Your task to perform on an android device: toggle notifications settings in the gmail app Image 0: 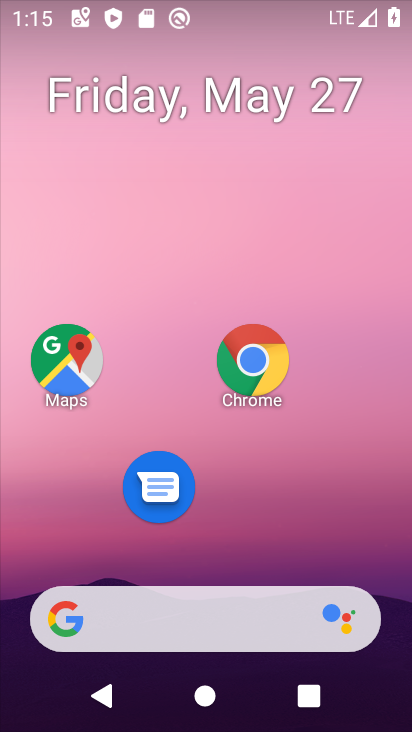
Step 0: drag from (241, 558) to (247, 40)
Your task to perform on an android device: toggle notifications settings in the gmail app Image 1: 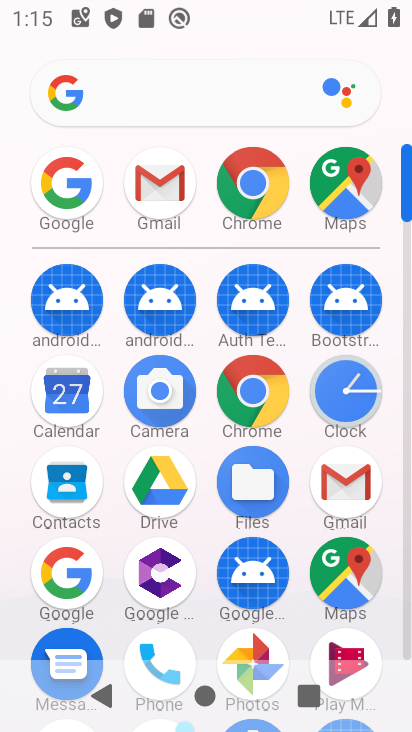
Step 1: click (347, 486)
Your task to perform on an android device: toggle notifications settings in the gmail app Image 2: 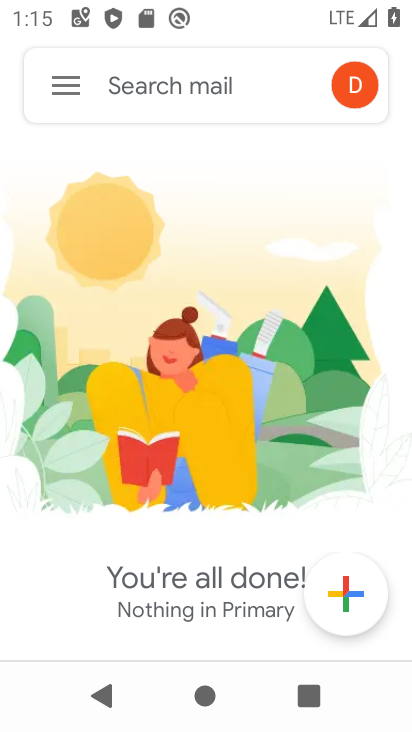
Step 2: click (62, 85)
Your task to perform on an android device: toggle notifications settings in the gmail app Image 3: 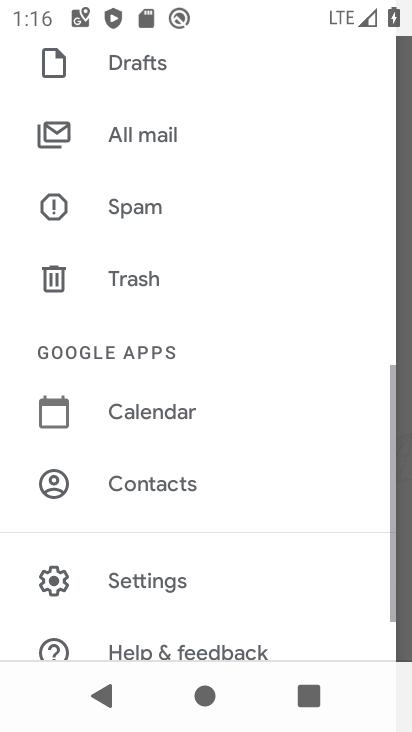
Step 3: click (173, 581)
Your task to perform on an android device: toggle notifications settings in the gmail app Image 4: 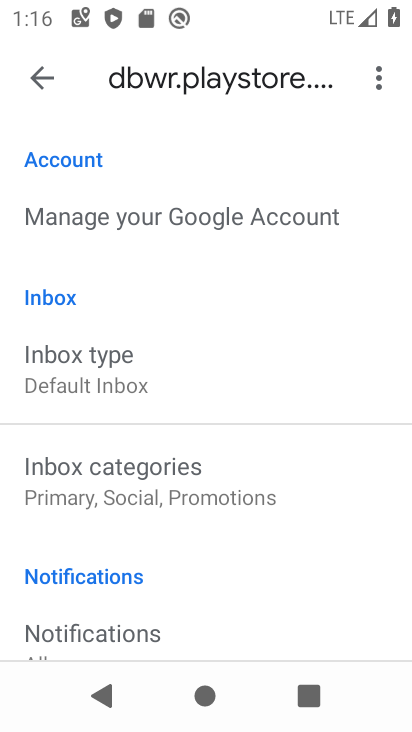
Step 4: drag from (202, 603) to (215, 359)
Your task to perform on an android device: toggle notifications settings in the gmail app Image 5: 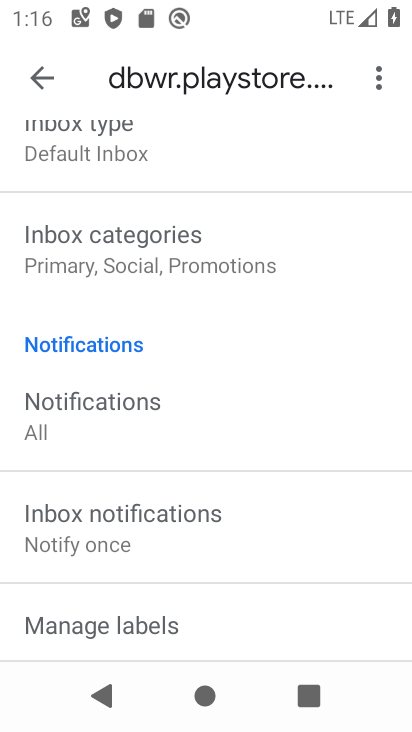
Step 5: click (112, 424)
Your task to perform on an android device: toggle notifications settings in the gmail app Image 6: 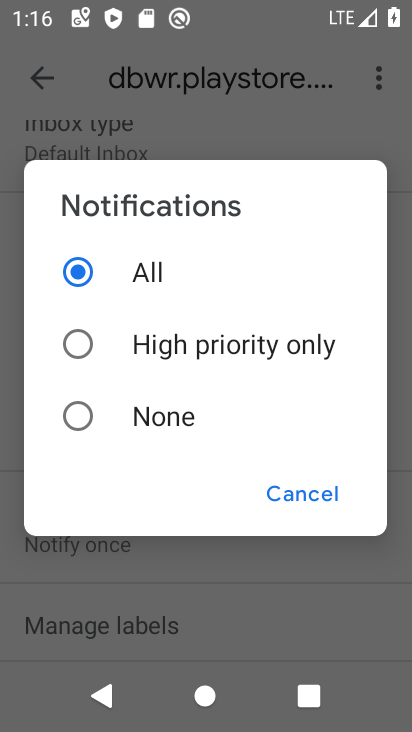
Step 6: click (77, 414)
Your task to perform on an android device: toggle notifications settings in the gmail app Image 7: 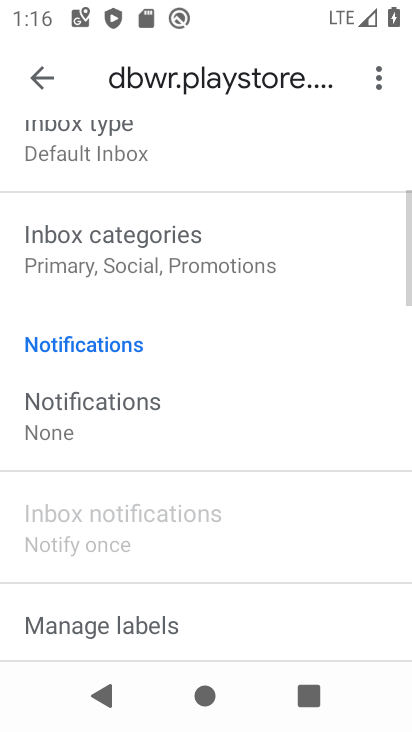
Step 7: task complete